Your task to perform on an android device: Open my contact list Image 0: 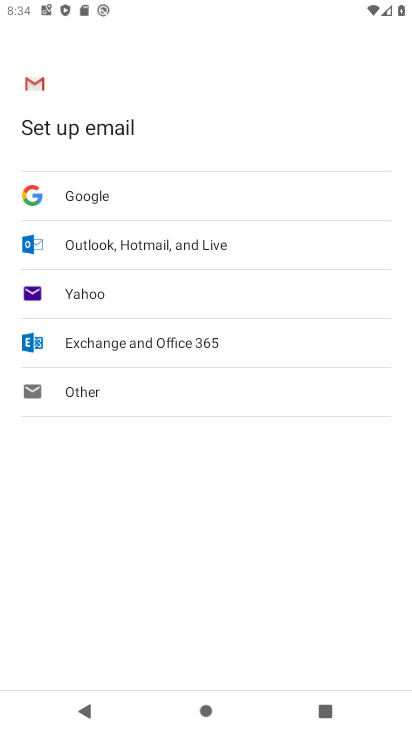
Step 0: press home button
Your task to perform on an android device: Open my contact list Image 1: 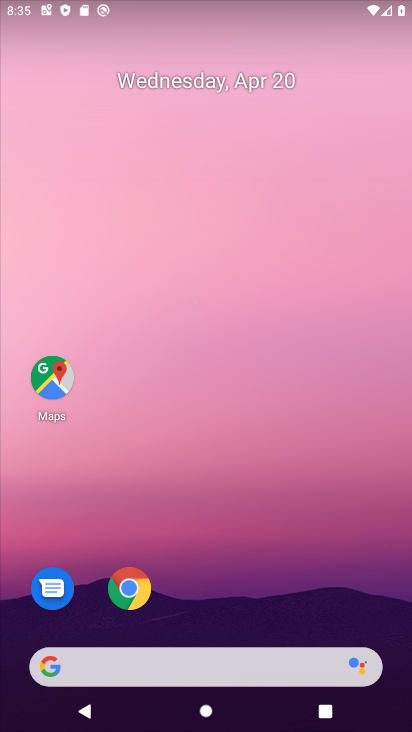
Step 1: drag from (230, 593) to (254, 94)
Your task to perform on an android device: Open my contact list Image 2: 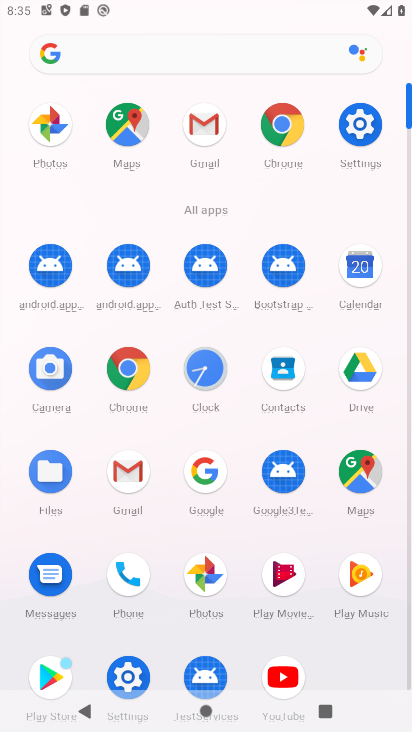
Step 2: click (284, 366)
Your task to perform on an android device: Open my contact list Image 3: 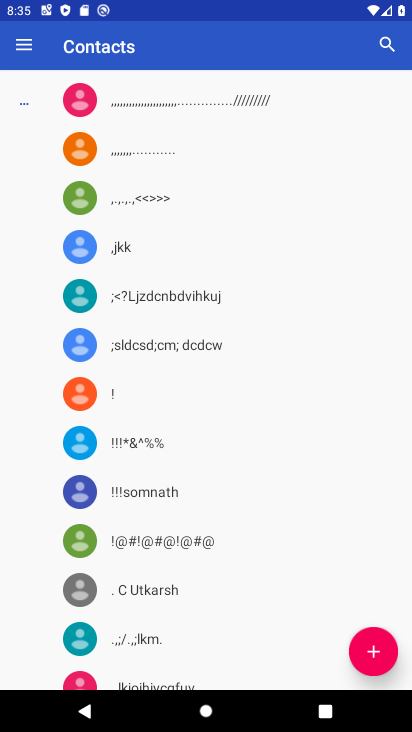
Step 3: task complete